Your task to perform on an android device: Go to ESPN.com Image 0: 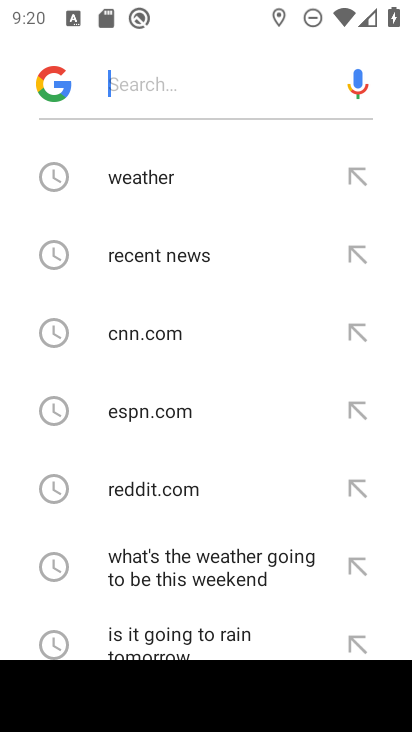
Step 0: type "espn.com"
Your task to perform on an android device: Go to ESPN.com Image 1: 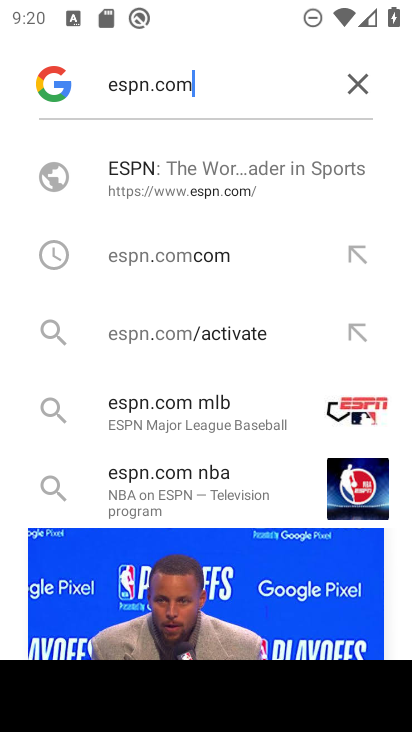
Step 1: click (150, 166)
Your task to perform on an android device: Go to ESPN.com Image 2: 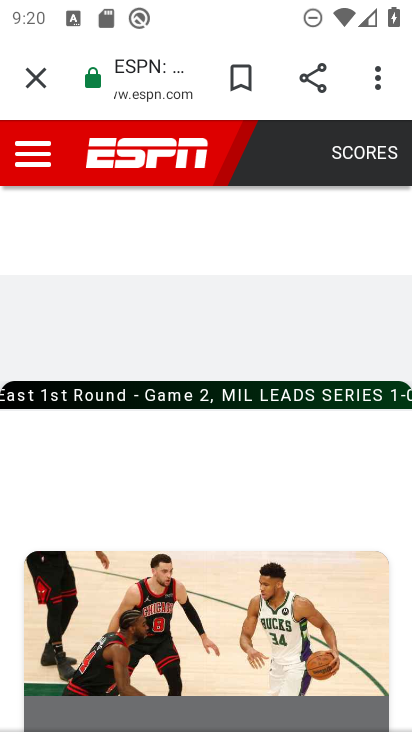
Step 2: task complete